Your task to perform on an android device: check battery use Image 0: 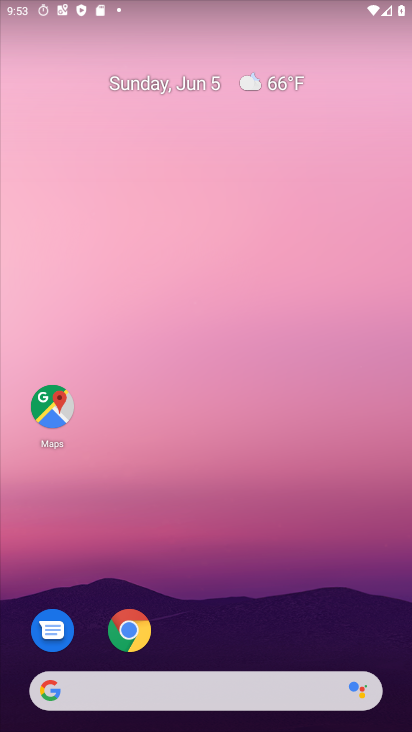
Step 0: drag from (213, 731) to (223, 24)
Your task to perform on an android device: check battery use Image 1: 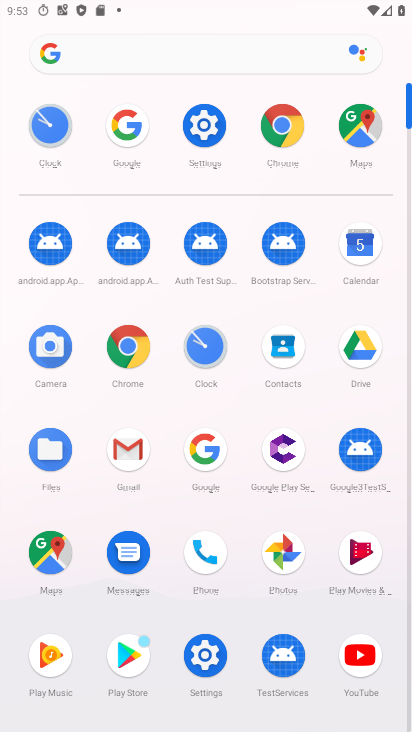
Step 1: click (206, 127)
Your task to perform on an android device: check battery use Image 2: 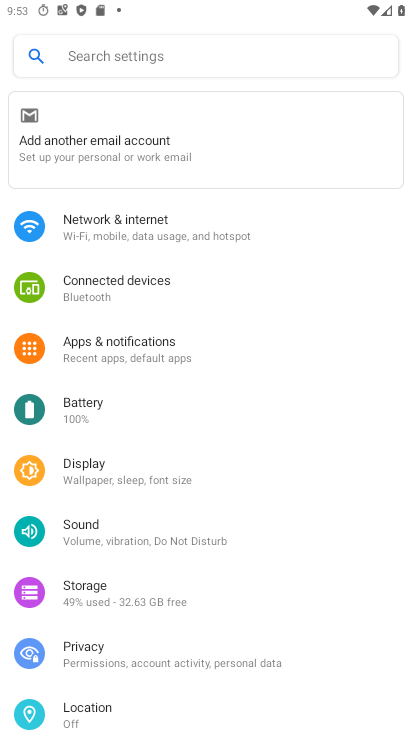
Step 2: click (85, 413)
Your task to perform on an android device: check battery use Image 3: 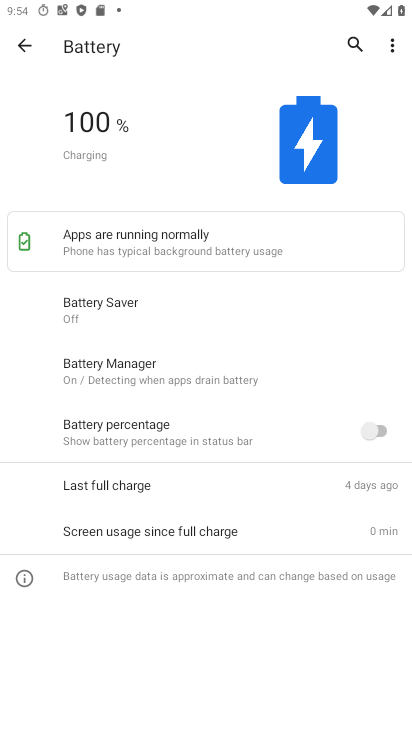
Step 3: click (392, 48)
Your task to perform on an android device: check battery use Image 4: 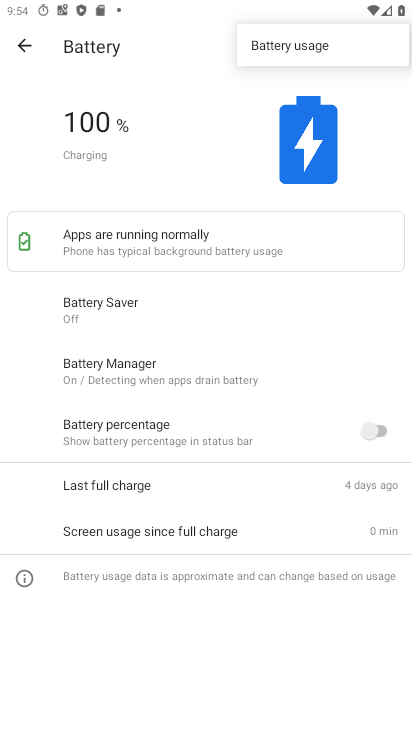
Step 4: click (292, 44)
Your task to perform on an android device: check battery use Image 5: 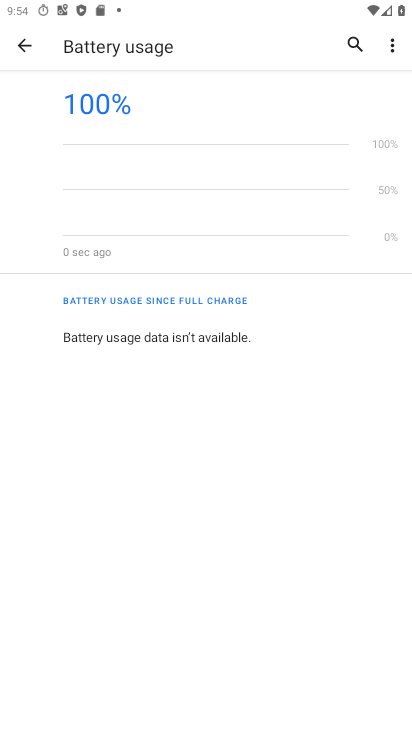
Step 5: task complete